Your task to perform on an android device: Clear the cart on bestbuy. Image 0: 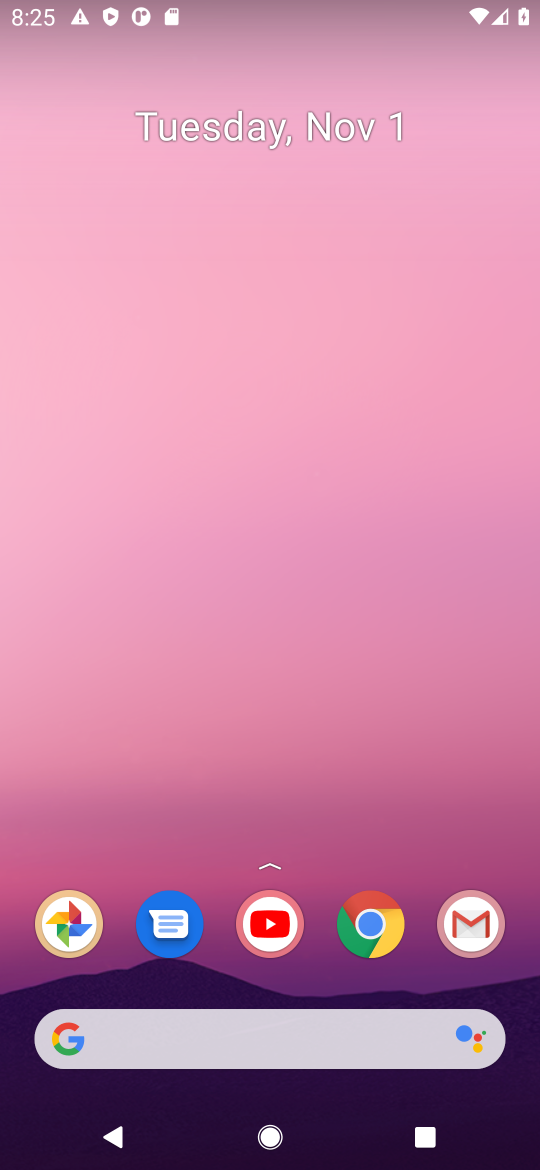
Step 0: press home button
Your task to perform on an android device: Clear the cart on bestbuy. Image 1: 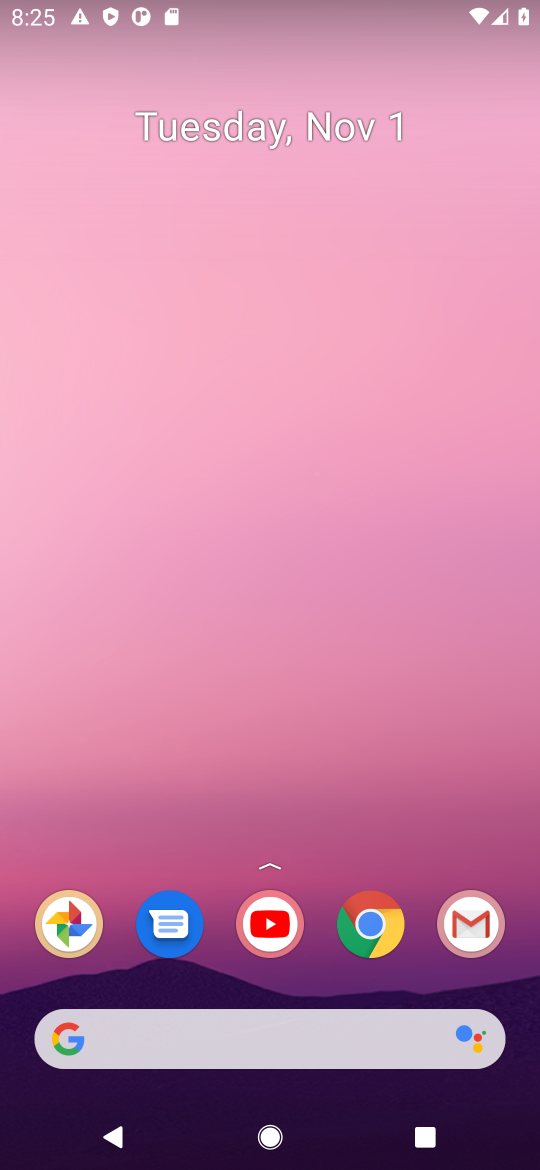
Step 1: press home button
Your task to perform on an android device: Clear the cart on bestbuy. Image 2: 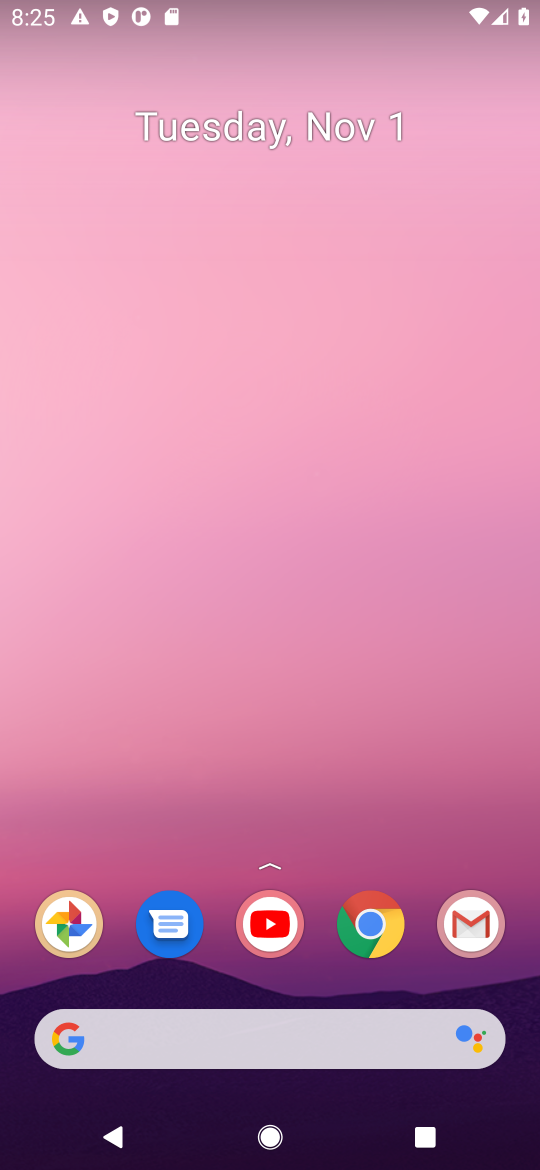
Step 2: click (166, 1033)
Your task to perform on an android device: Clear the cart on bestbuy. Image 3: 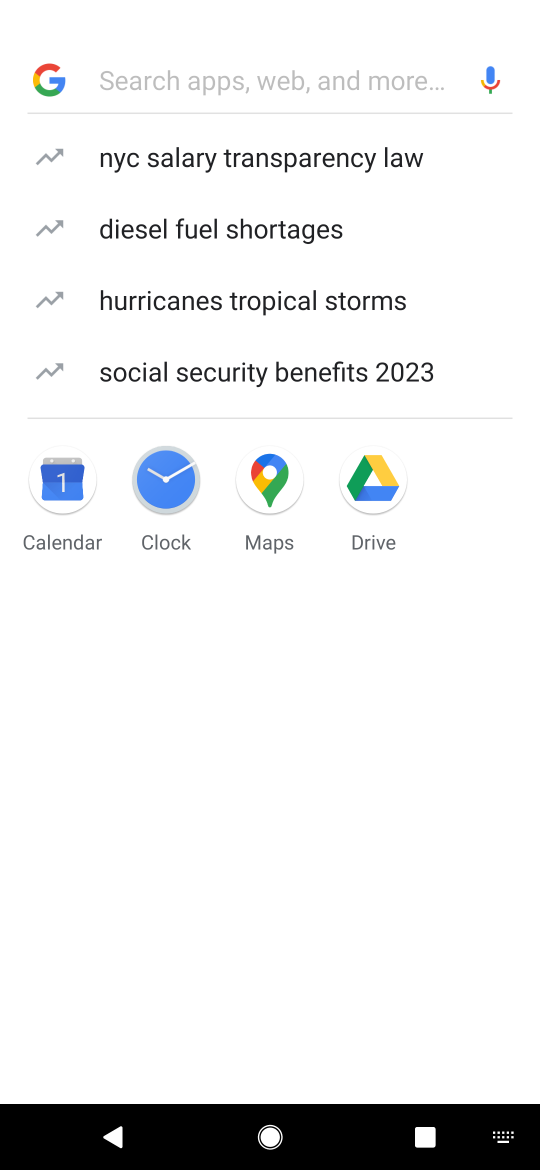
Step 3: press enter
Your task to perform on an android device: Clear the cart on bestbuy. Image 4: 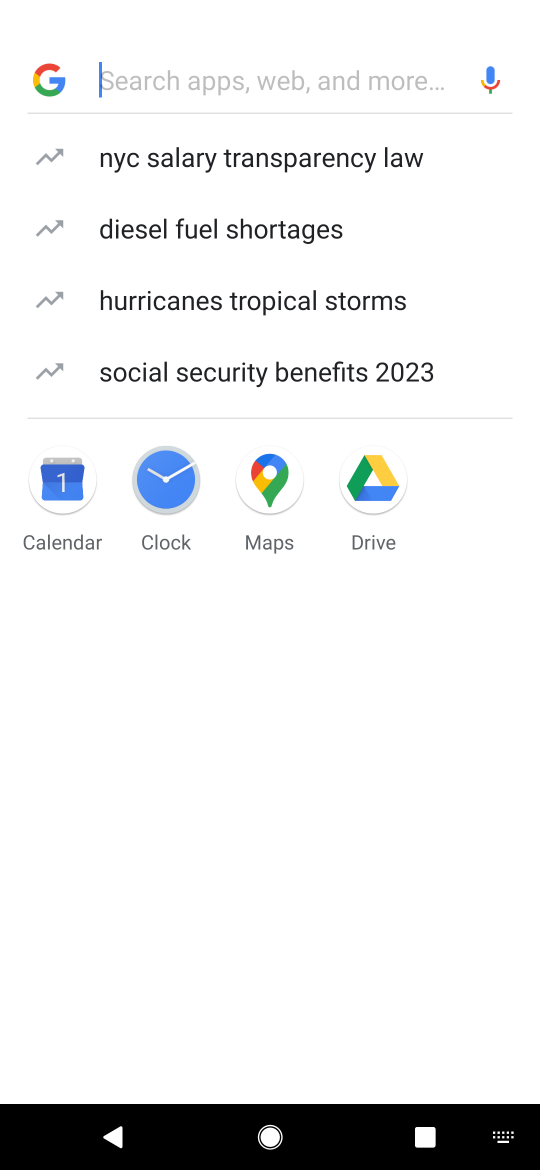
Step 4: type "bestbuy"
Your task to perform on an android device: Clear the cart on bestbuy. Image 5: 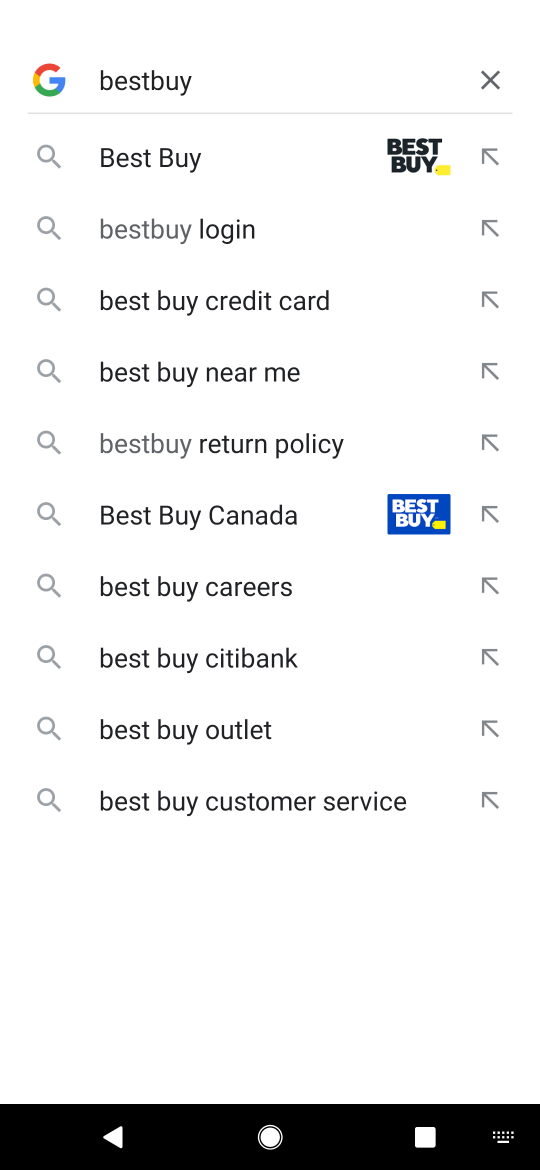
Step 5: press enter
Your task to perform on an android device: Clear the cart on bestbuy. Image 6: 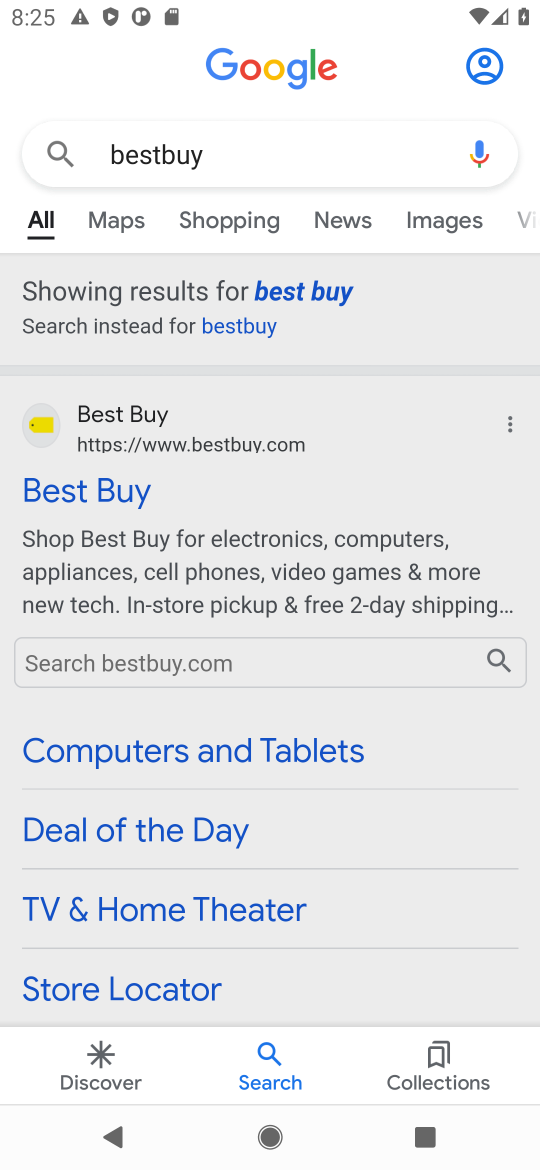
Step 6: click (83, 487)
Your task to perform on an android device: Clear the cart on bestbuy. Image 7: 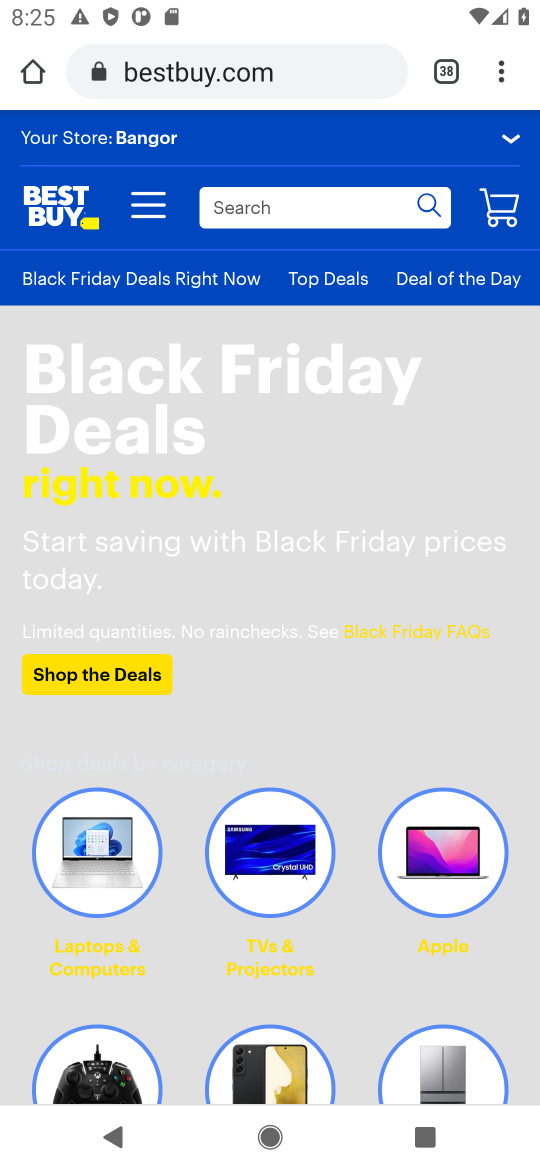
Step 7: click (505, 211)
Your task to perform on an android device: Clear the cart on bestbuy. Image 8: 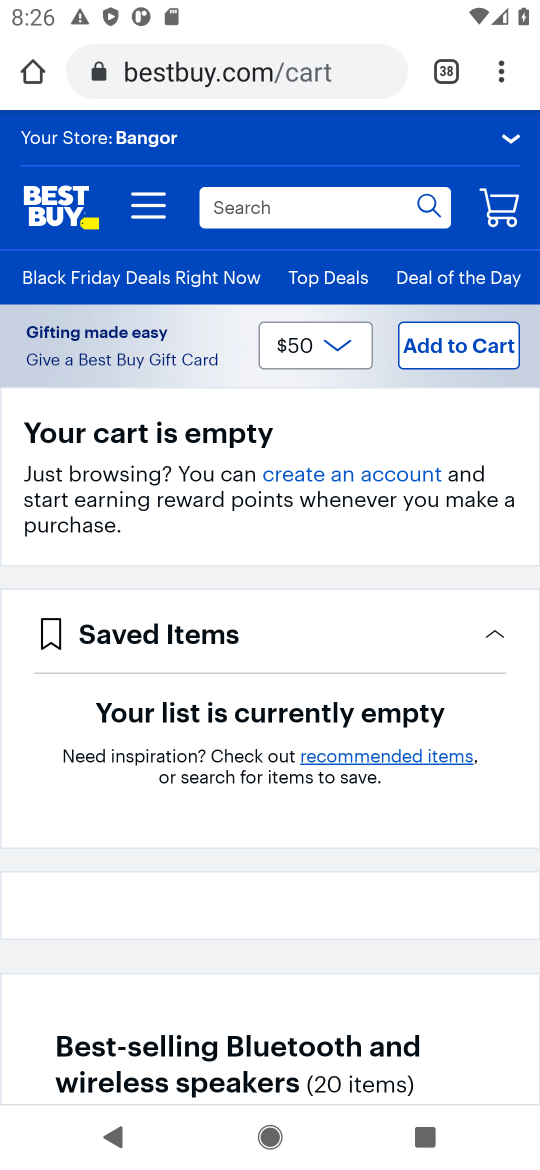
Step 8: task complete